Your task to perform on an android device: clear history in the chrome app Image 0: 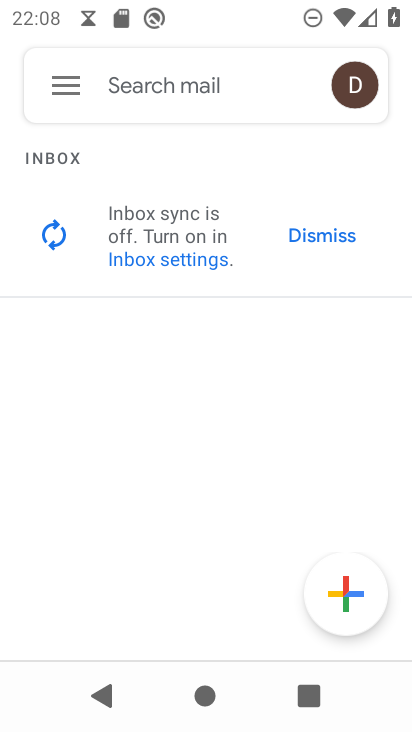
Step 0: press home button
Your task to perform on an android device: clear history in the chrome app Image 1: 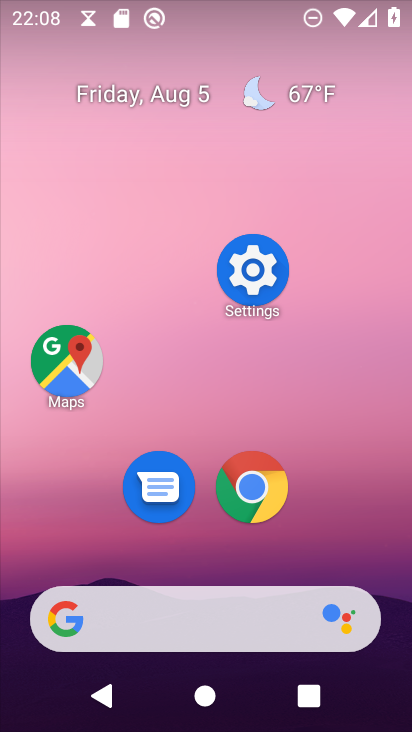
Step 1: click (255, 484)
Your task to perform on an android device: clear history in the chrome app Image 2: 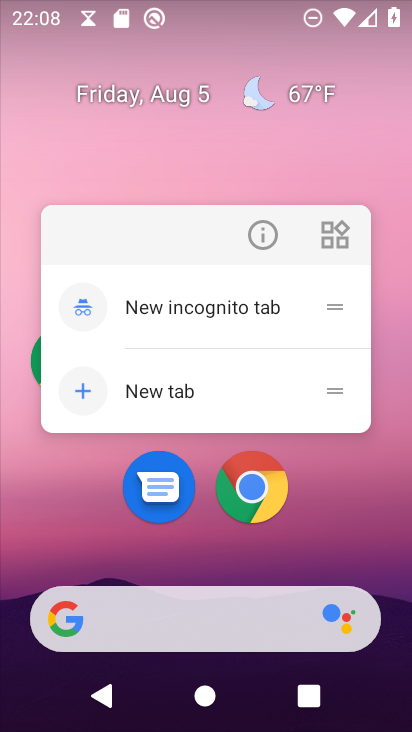
Step 2: click (256, 485)
Your task to perform on an android device: clear history in the chrome app Image 3: 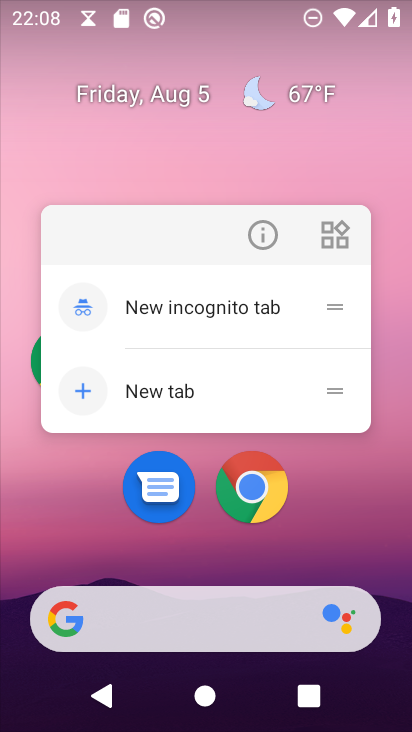
Step 3: click (249, 488)
Your task to perform on an android device: clear history in the chrome app Image 4: 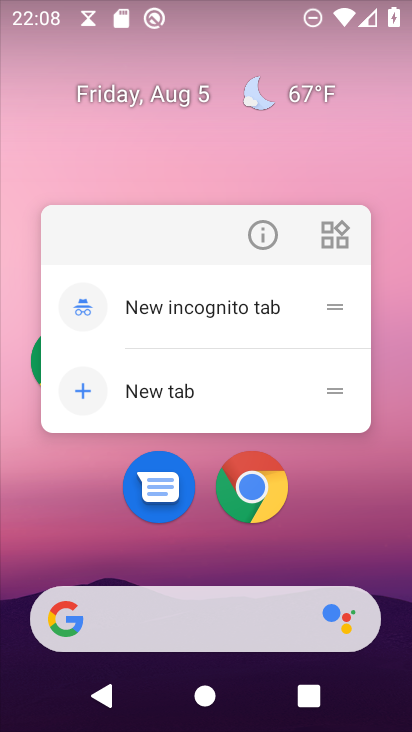
Step 4: click (258, 486)
Your task to perform on an android device: clear history in the chrome app Image 5: 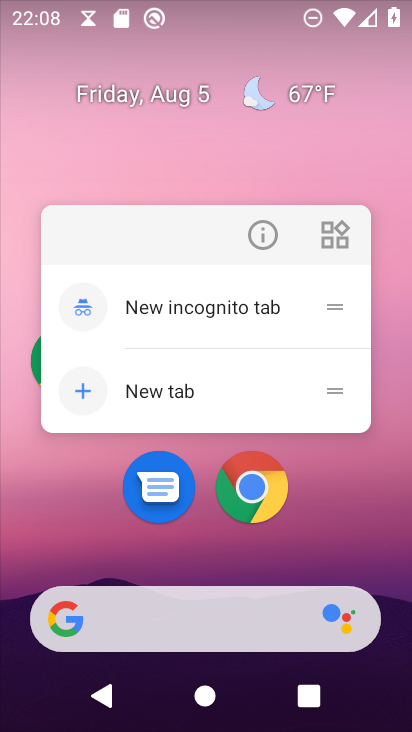
Step 5: click (258, 483)
Your task to perform on an android device: clear history in the chrome app Image 6: 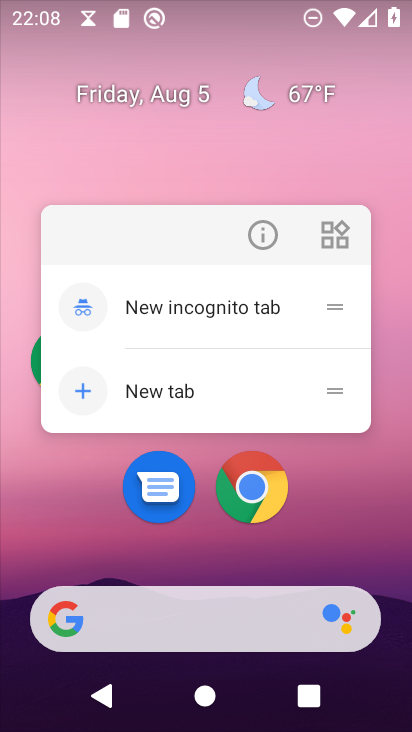
Step 6: click (258, 488)
Your task to perform on an android device: clear history in the chrome app Image 7: 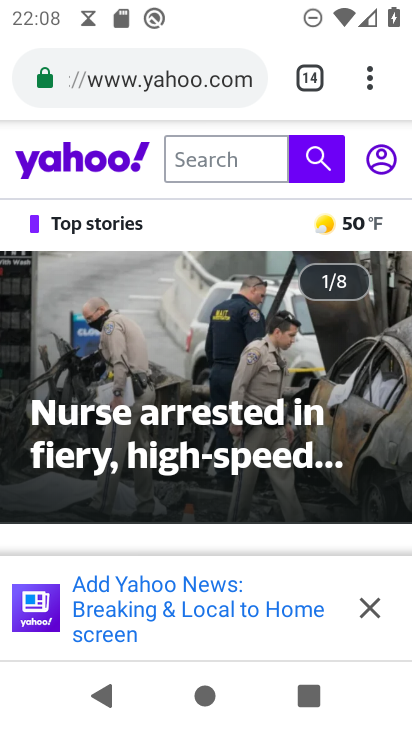
Step 7: drag from (372, 76) to (220, 441)
Your task to perform on an android device: clear history in the chrome app Image 8: 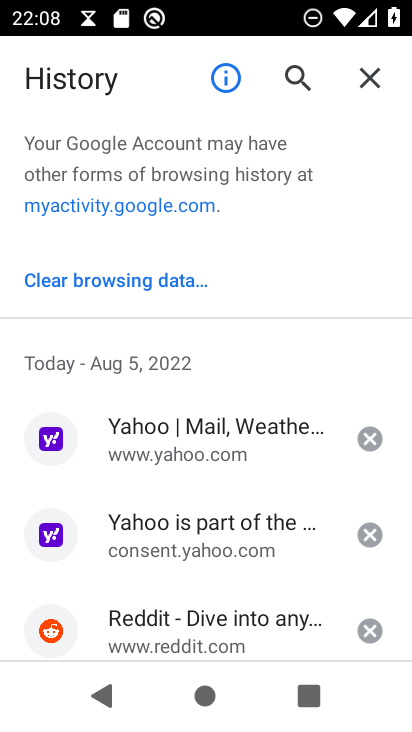
Step 8: click (102, 271)
Your task to perform on an android device: clear history in the chrome app Image 9: 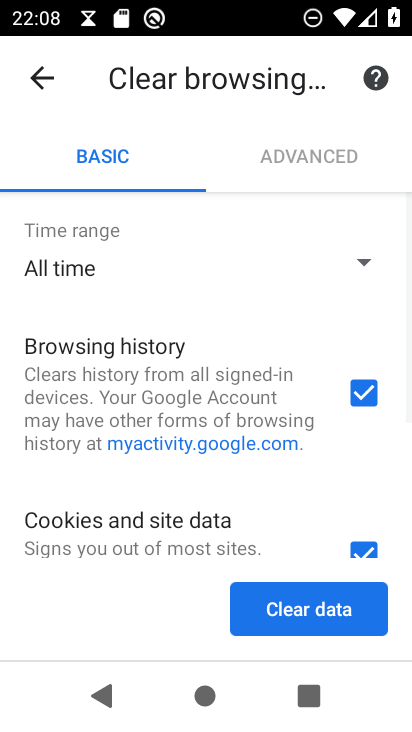
Step 9: drag from (258, 523) to (286, 136)
Your task to perform on an android device: clear history in the chrome app Image 10: 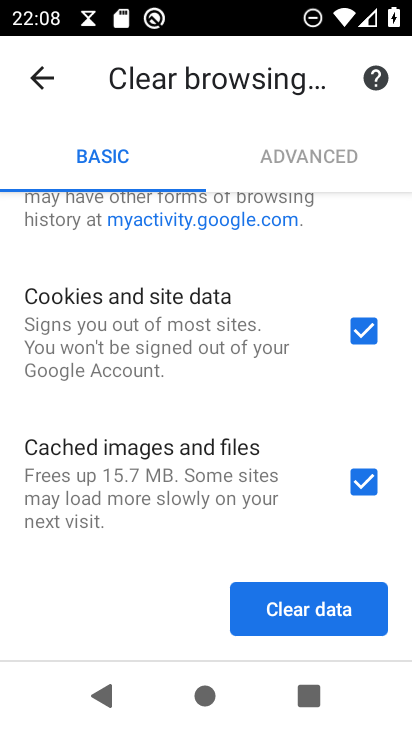
Step 10: click (314, 608)
Your task to perform on an android device: clear history in the chrome app Image 11: 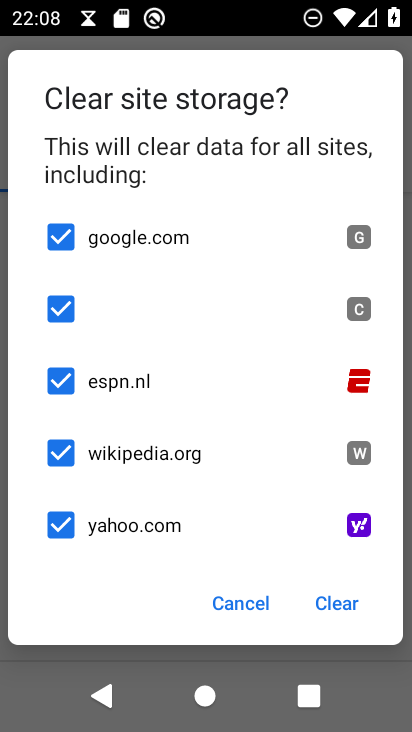
Step 11: click (334, 601)
Your task to perform on an android device: clear history in the chrome app Image 12: 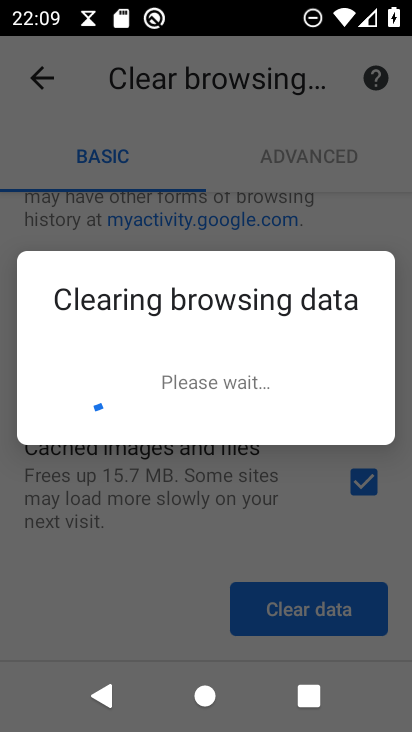
Step 12: task complete